Your task to perform on an android device: Open Wikipedia Image 0: 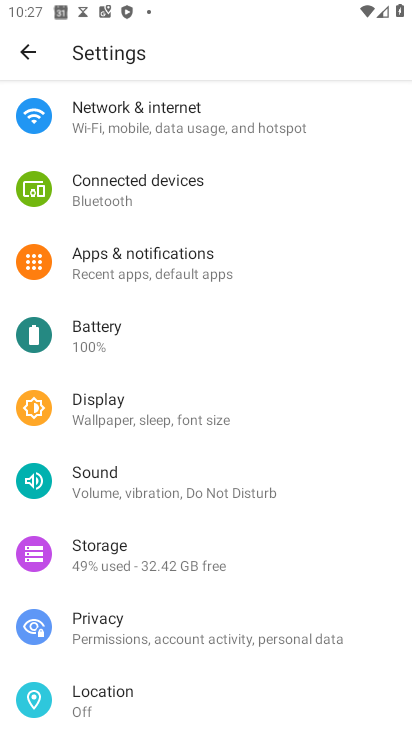
Step 0: press home button
Your task to perform on an android device: Open Wikipedia Image 1: 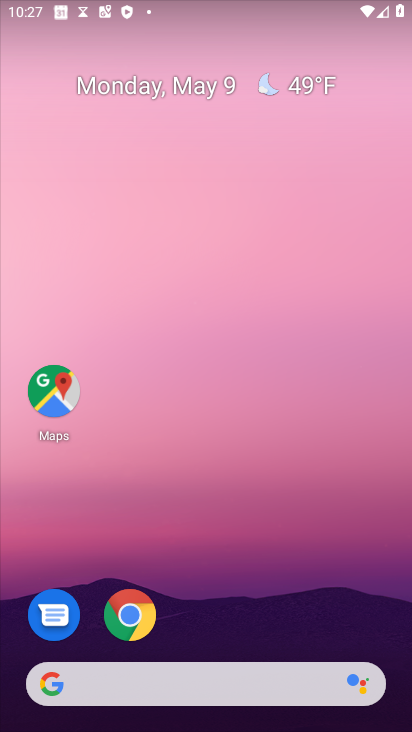
Step 1: click (148, 612)
Your task to perform on an android device: Open Wikipedia Image 2: 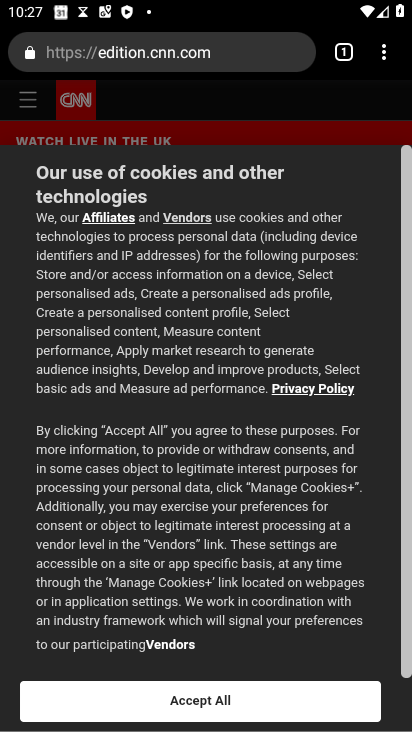
Step 2: click (243, 53)
Your task to perform on an android device: Open Wikipedia Image 3: 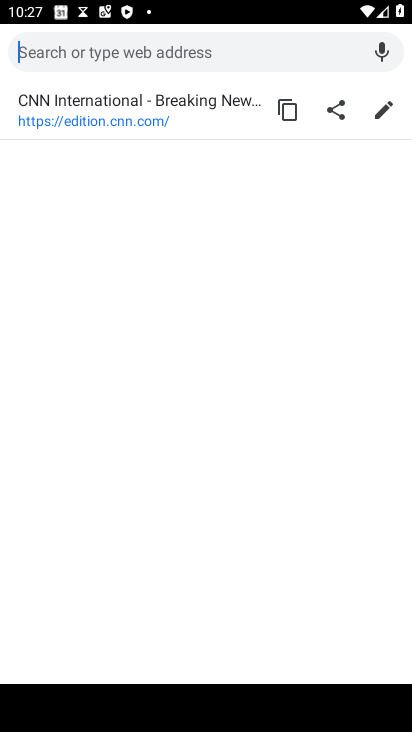
Step 3: type "wikipedia"
Your task to perform on an android device: Open Wikipedia Image 4: 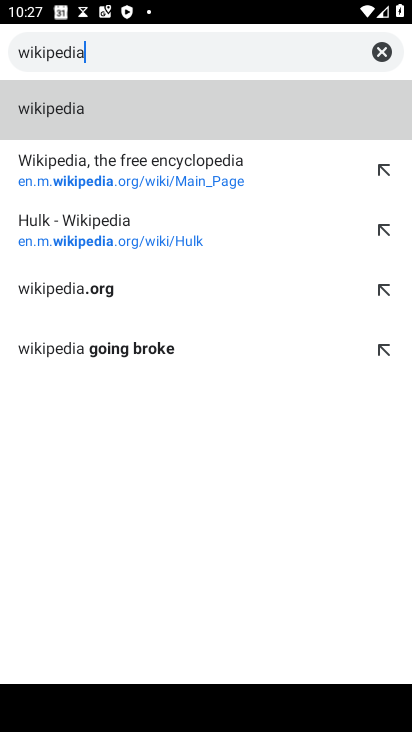
Step 4: click (67, 97)
Your task to perform on an android device: Open Wikipedia Image 5: 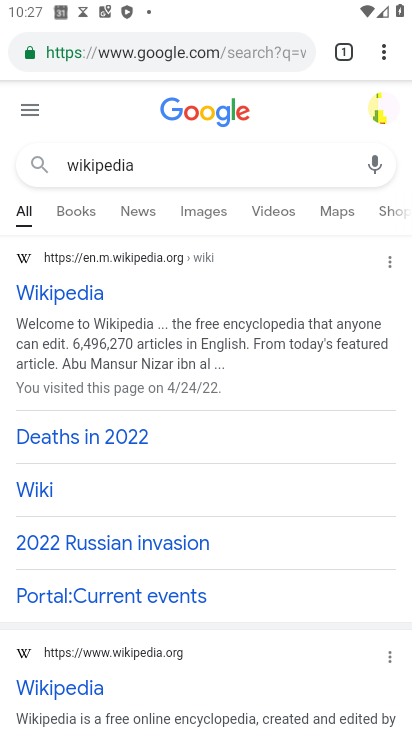
Step 5: click (78, 299)
Your task to perform on an android device: Open Wikipedia Image 6: 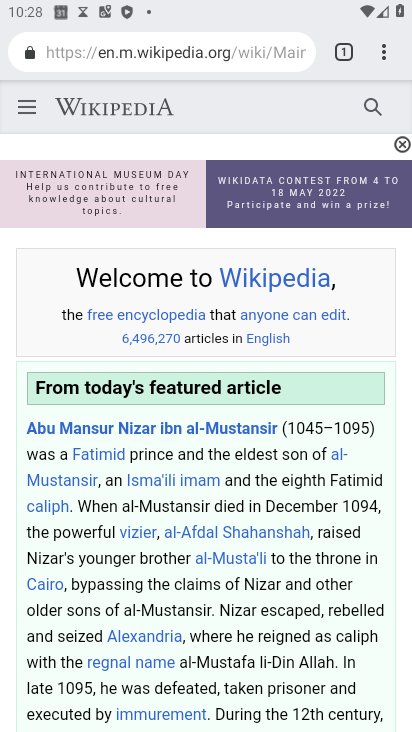
Step 6: task complete